Your task to perform on an android device: Clear the cart on amazon.com. Add "alienware aurora" to the cart on amazon.com, then select checkout. Image 0: 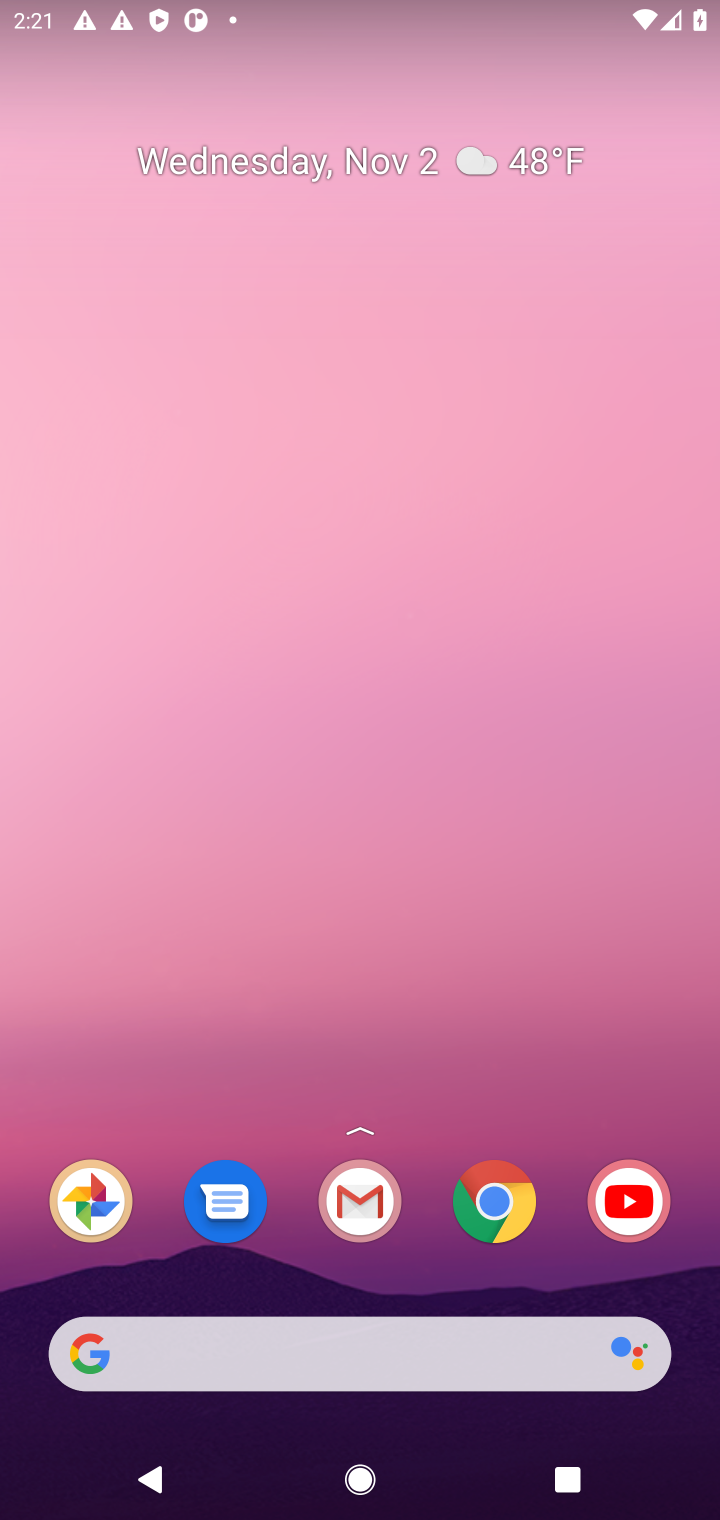
Step 0: click (496, 1186)
Your task to perform on an android device: Clear the cart on amazon.com. Add "alienware aurora" to the cart on amazon.com, then select checkout. Image 1: 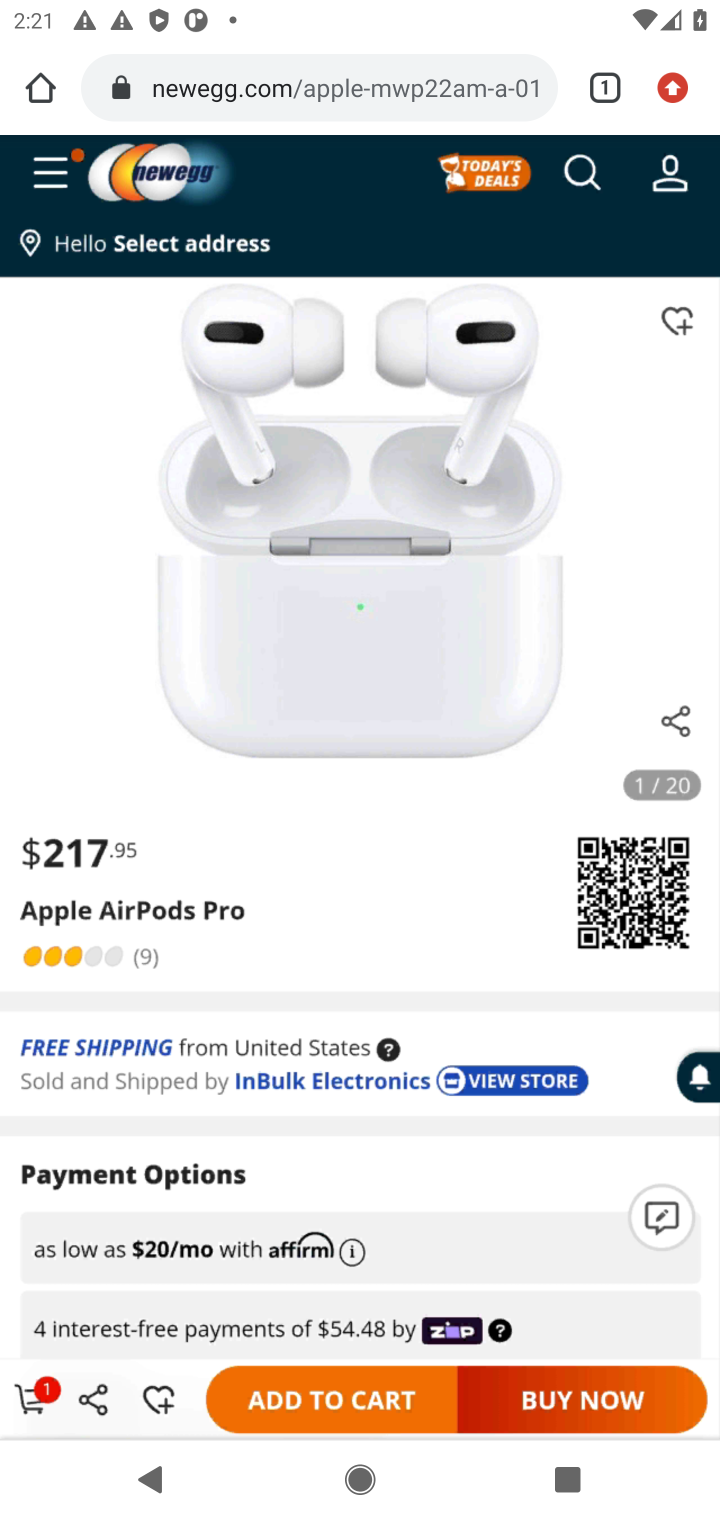
Step 1: click (389, 76)
Your task to perform on an android device: Clear the cart on amazon.com. Add "alienware aurora" to the cart on amazon.com, then select checkout. Image 2: 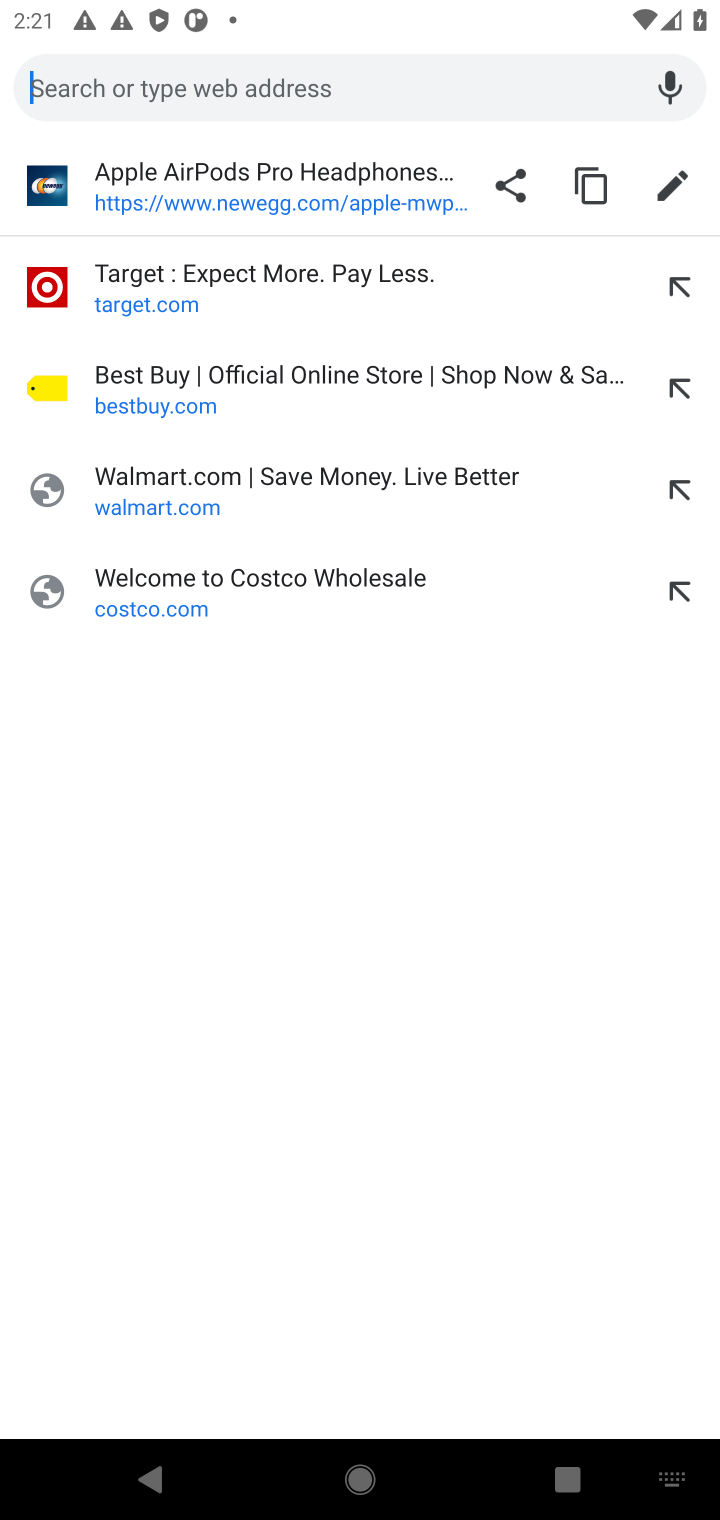
Step 2: type "amazon"
Your task to perform on an android device: Clear the cart on amazon.com. Add "alienware aurora" to the cart on amazon.com, then select checkout. Image 3: 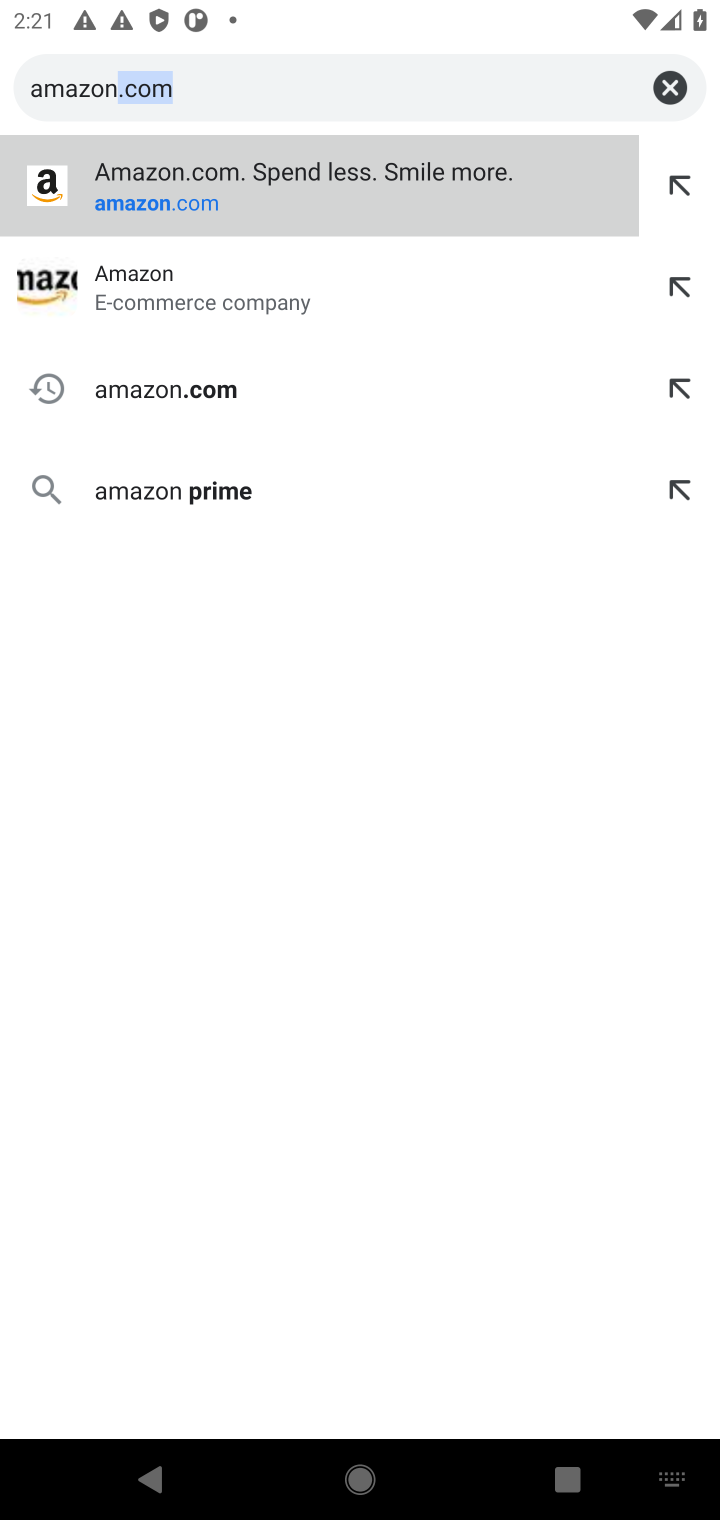
Step 3: click (205, 390)
Your task to perform on an android device: Clear the cart on amazon.com. Add "alienware aurora" to the cart on amazon.com, then select checkout. Image 4: 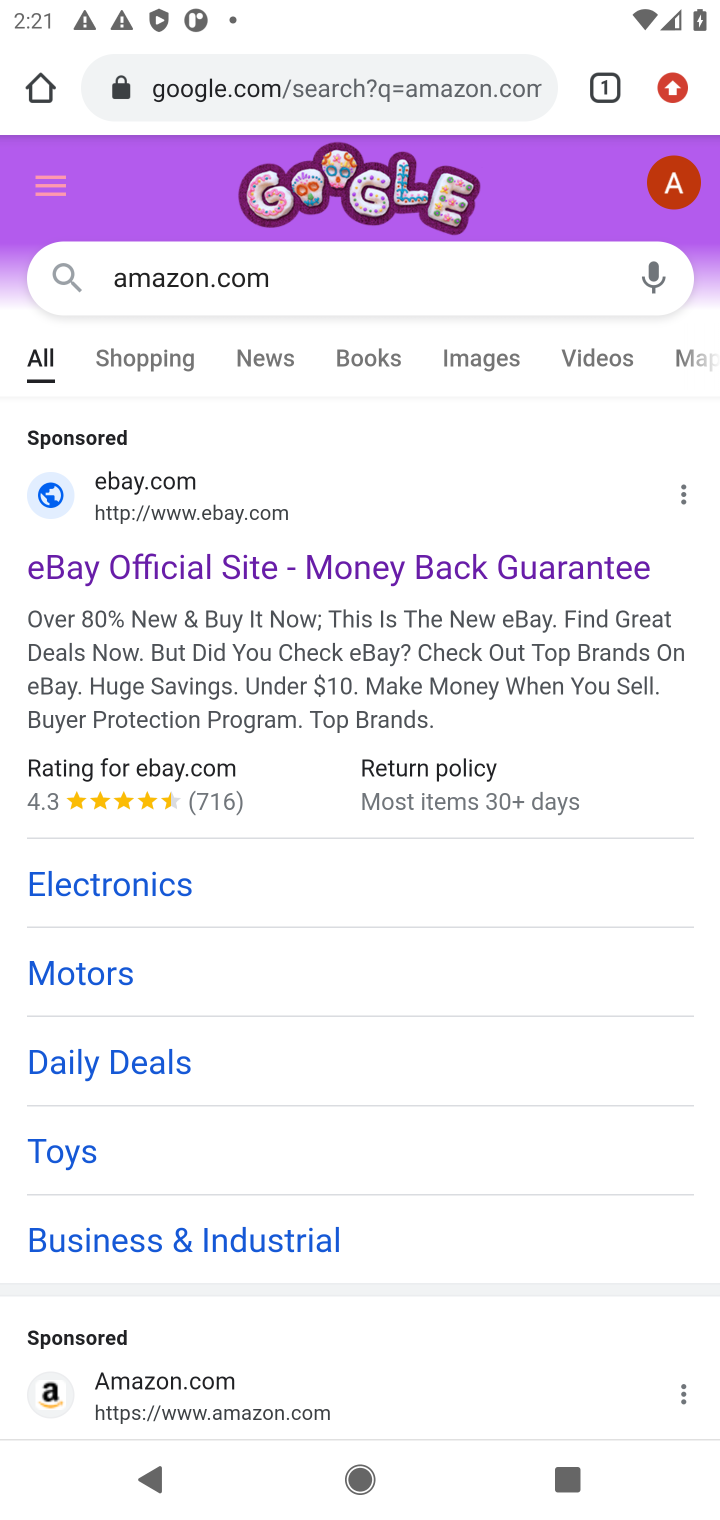
Step 4: drag from (329, 1137) to (376, 647)
Your task to perform on an android device: Clear the cart on amazon.com. Add "alienware aurora" to the cart on amazon.com, then select checkout. Image 5: 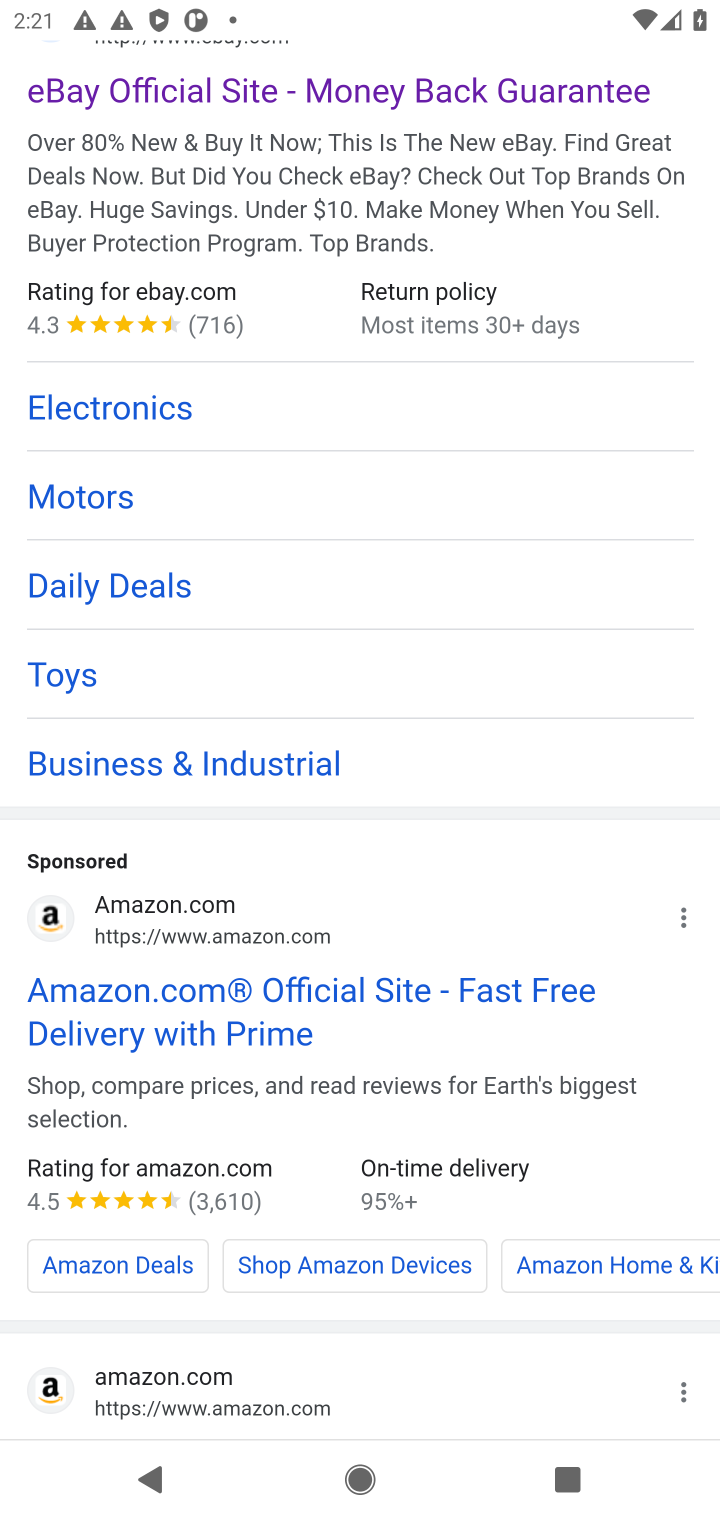
Step 5: click (203, 898)
Your task to perform on an android device: Clear the cart on amazon.com. Add "alienware aurora" to the cart on amazon.com, then select checkout. Image 6: 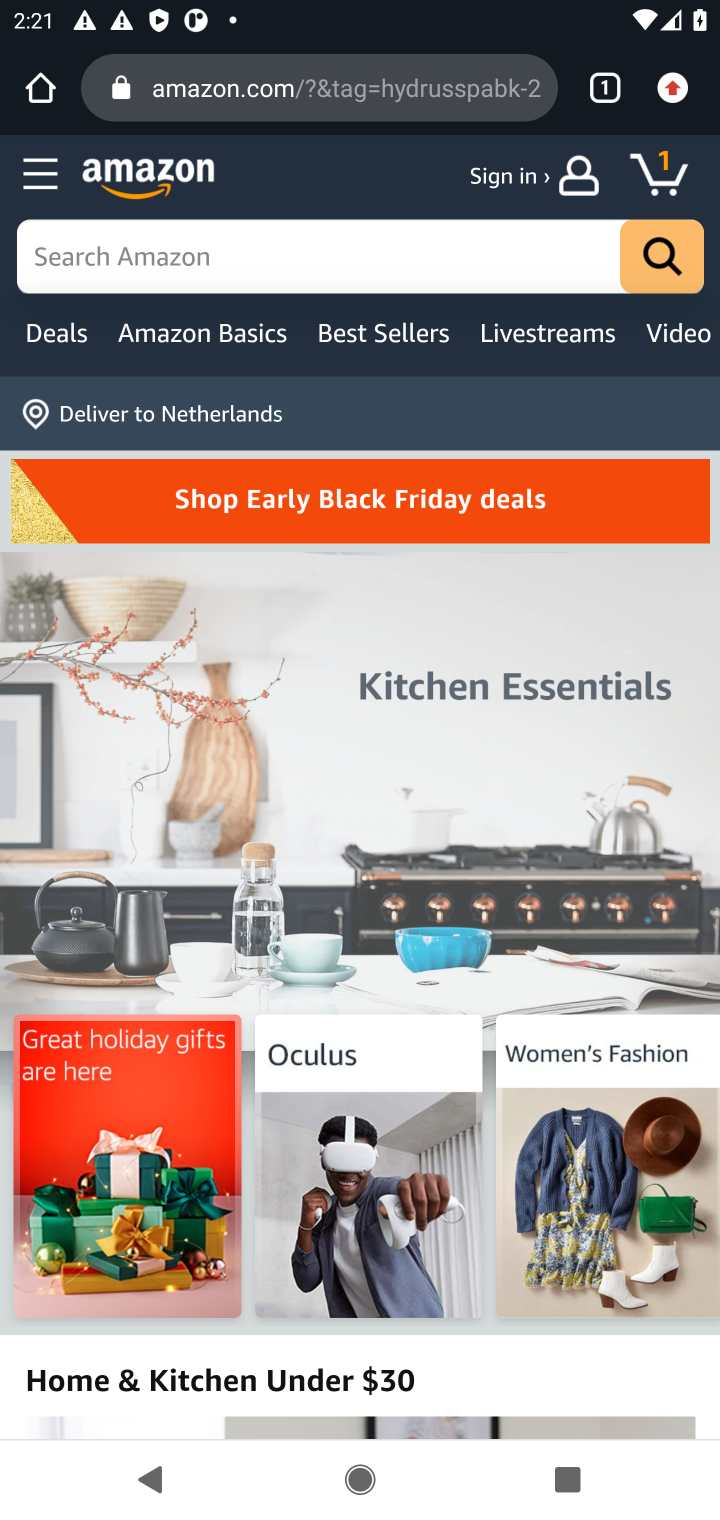
Step 6: click (655, 173)
Your task to perform on an android device: Clear the cart on amazon.com. Add "alienware aurora" to the cart on amazon.com, then select checkout. Image 7: 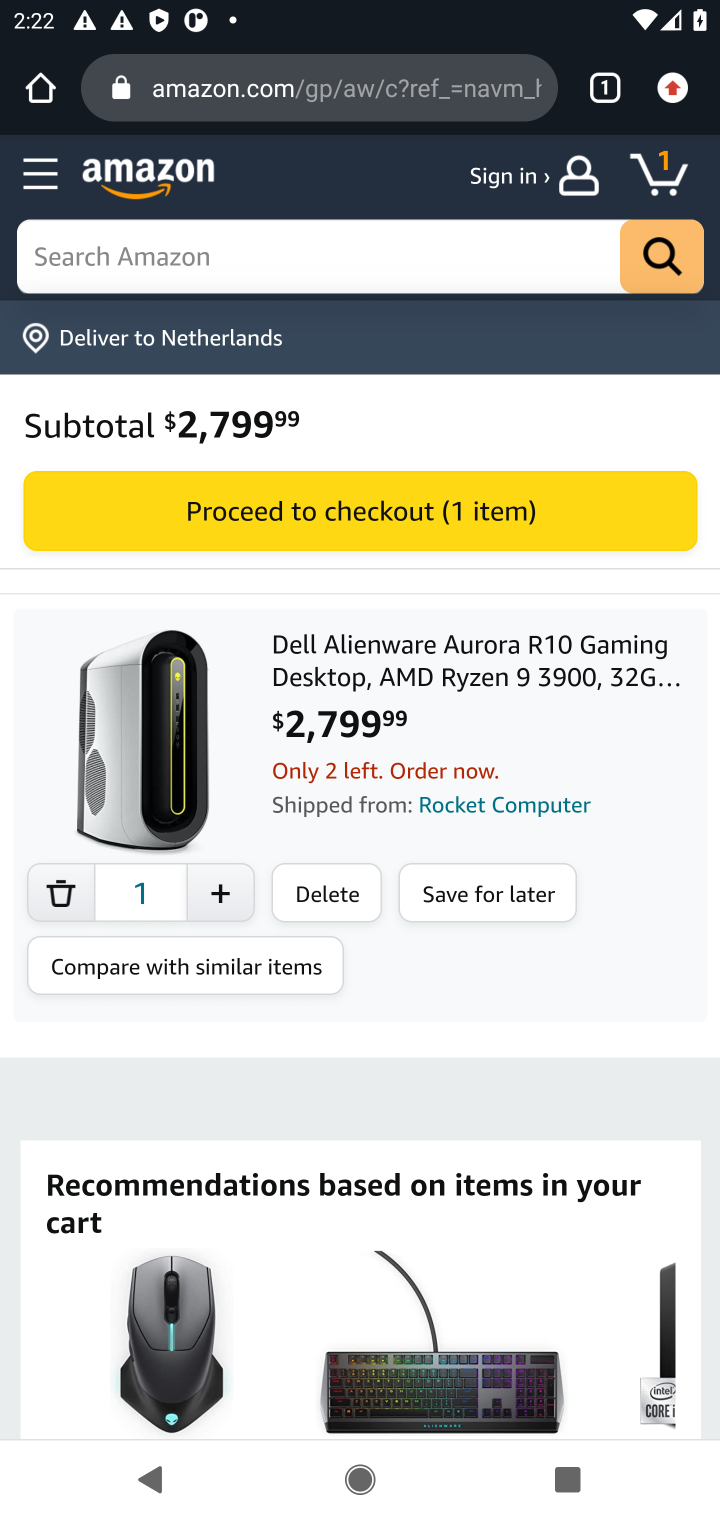
Step 7: click (320, 888)
Your task to perform on an android device: Clear the cart on amazon.com. Add "alienware aurora" to the cart on amazon.com, then select checkout. Image 8: 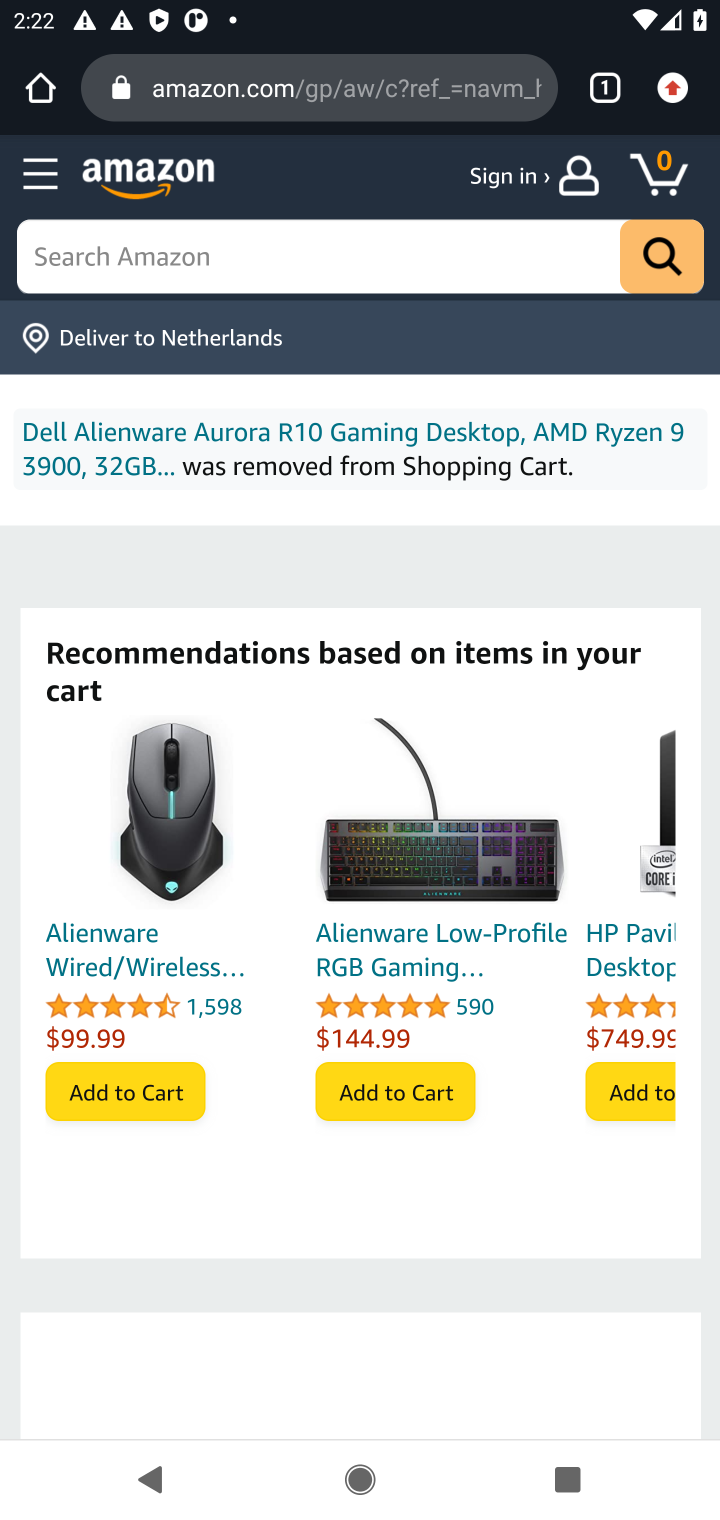
Step 8: click (459, 245)
Your task to perform on an android device: Clear the cart on amazon.com. Add "alienware aurora" to the cart on amazon.com, then select checkout. Image 9: 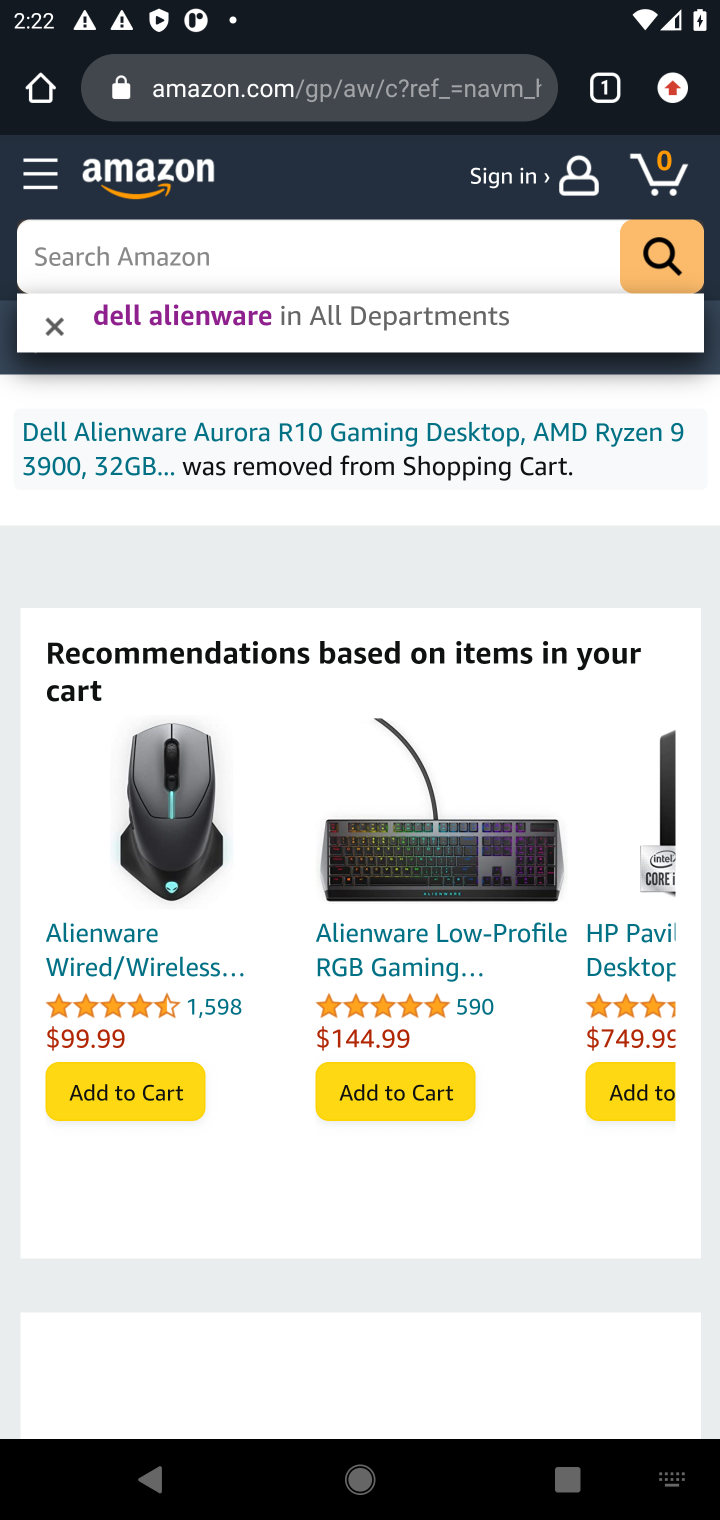
Step 9: type "alienware aurora"
Your task to perform on an android device: Clear the cart on amazon.com. Add "alienware aurora" to the cart on amazon.com, then select checkout. Image 10: 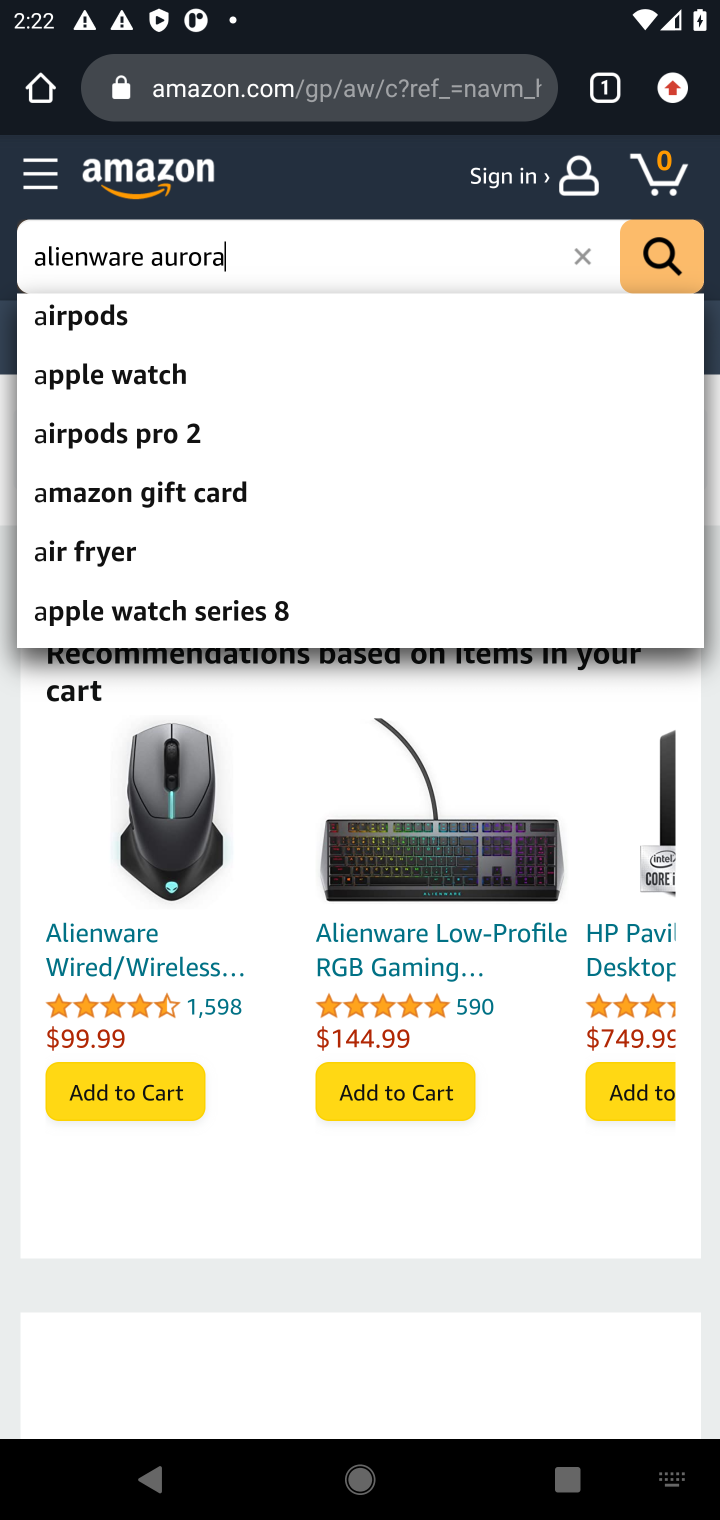
Step 10: press enter
Your task to perform on an android device: Clear the cart on amazon.com. Add "alienware aurora" to the cart on amazon.com, then select checkout. Image 11: 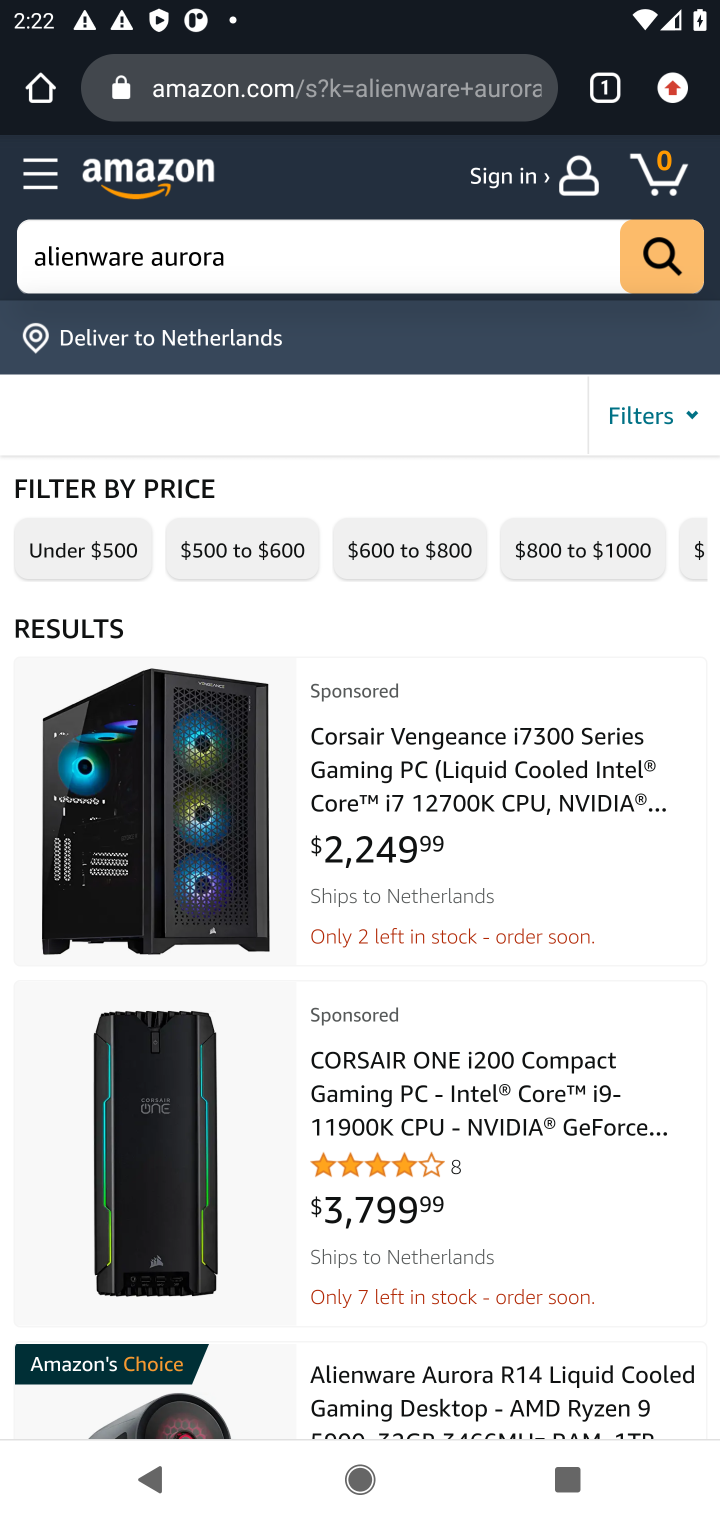
Step 11: click (469, 1395)
Your task to perform on an android device: Clear the cart on amazon.com. Add "alienware aurora" to the cart on amazon.com, then select checkout. Image 12: 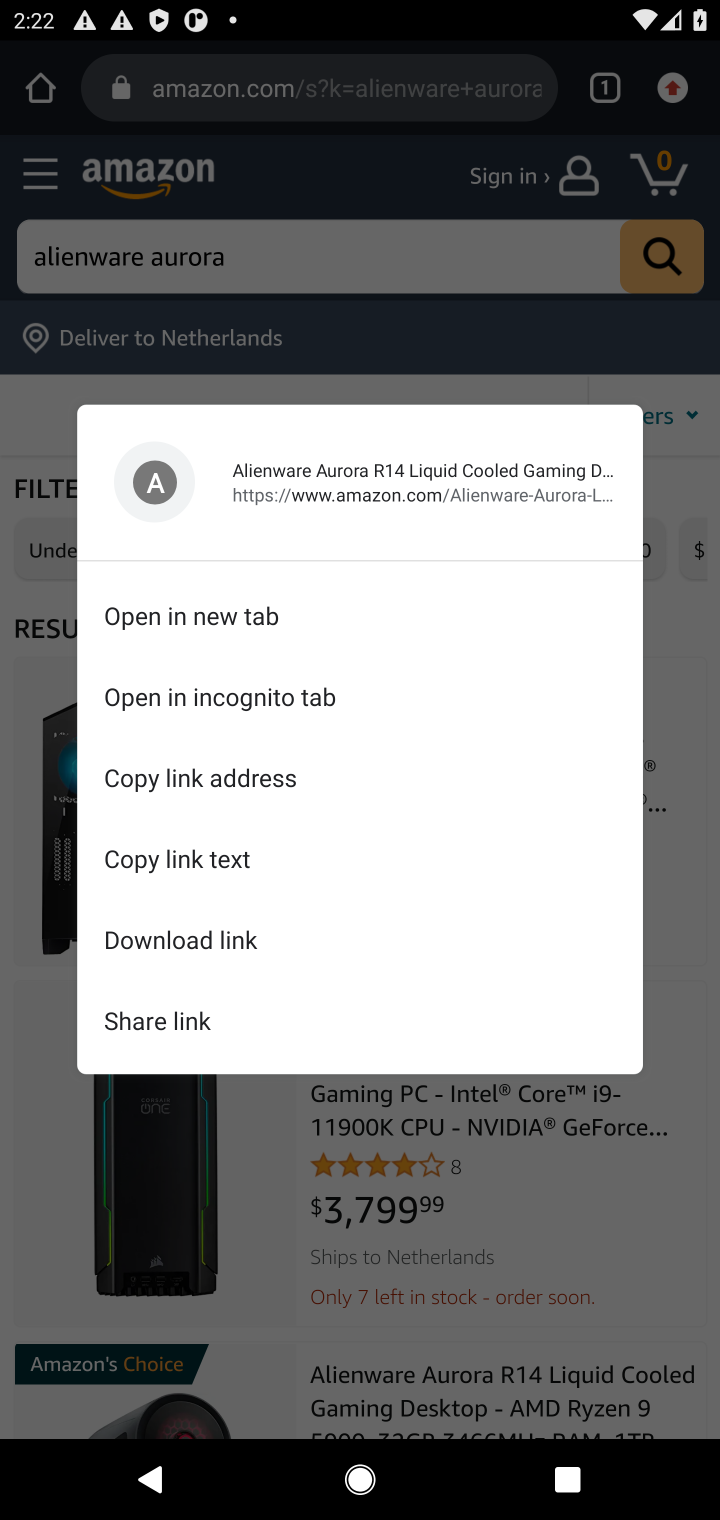
Step 12: click (469, 1395)
Your task to perform on an android device: Clear the cart on amazon.com. Add "alienware aurora" to the cart on amazon.com, then select checkout. Image 13: 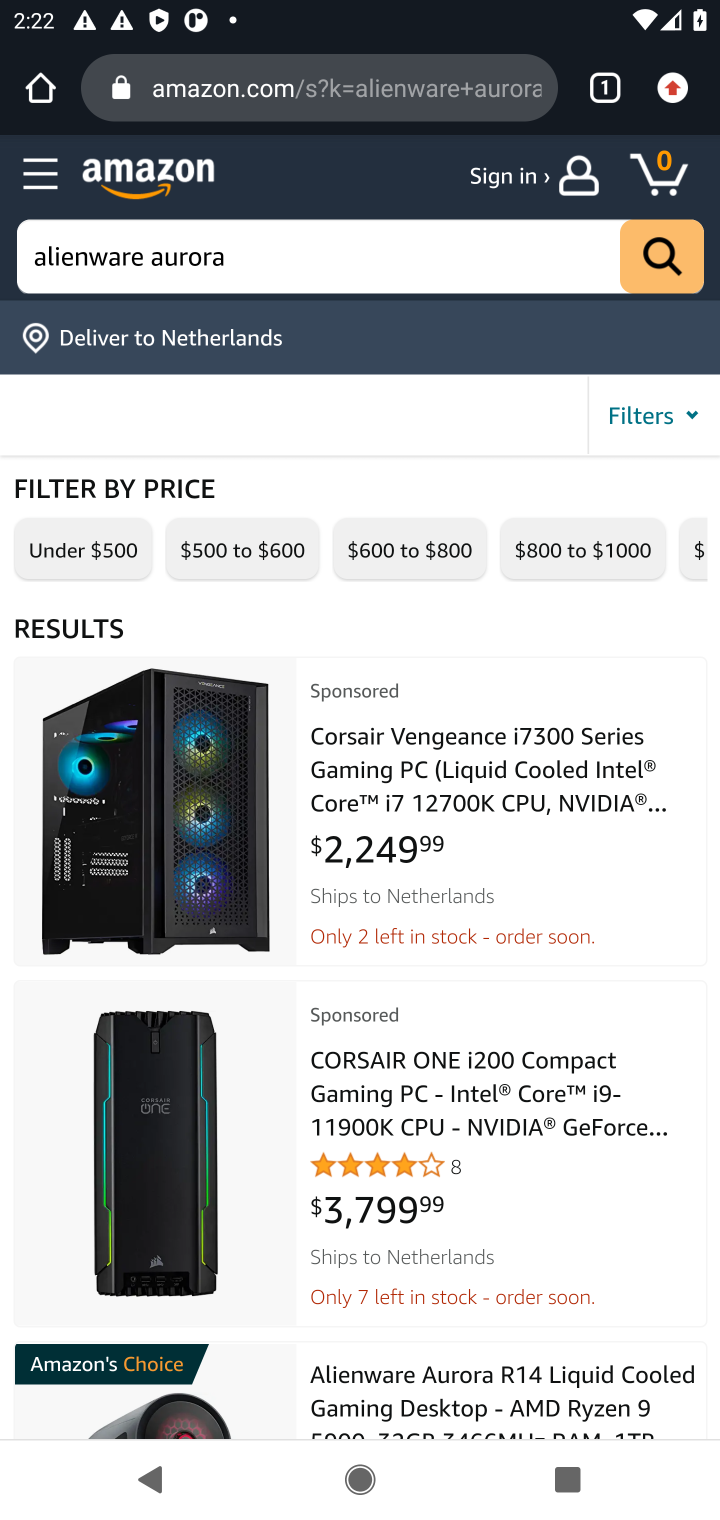
Step 13: drag from (465, 1198) to (502, 710)
Your task to perform on an android device: Clear the cart on amazon.com. Add "alienware aurora" to the cart on amazon.com, then select checkout. Image 14: 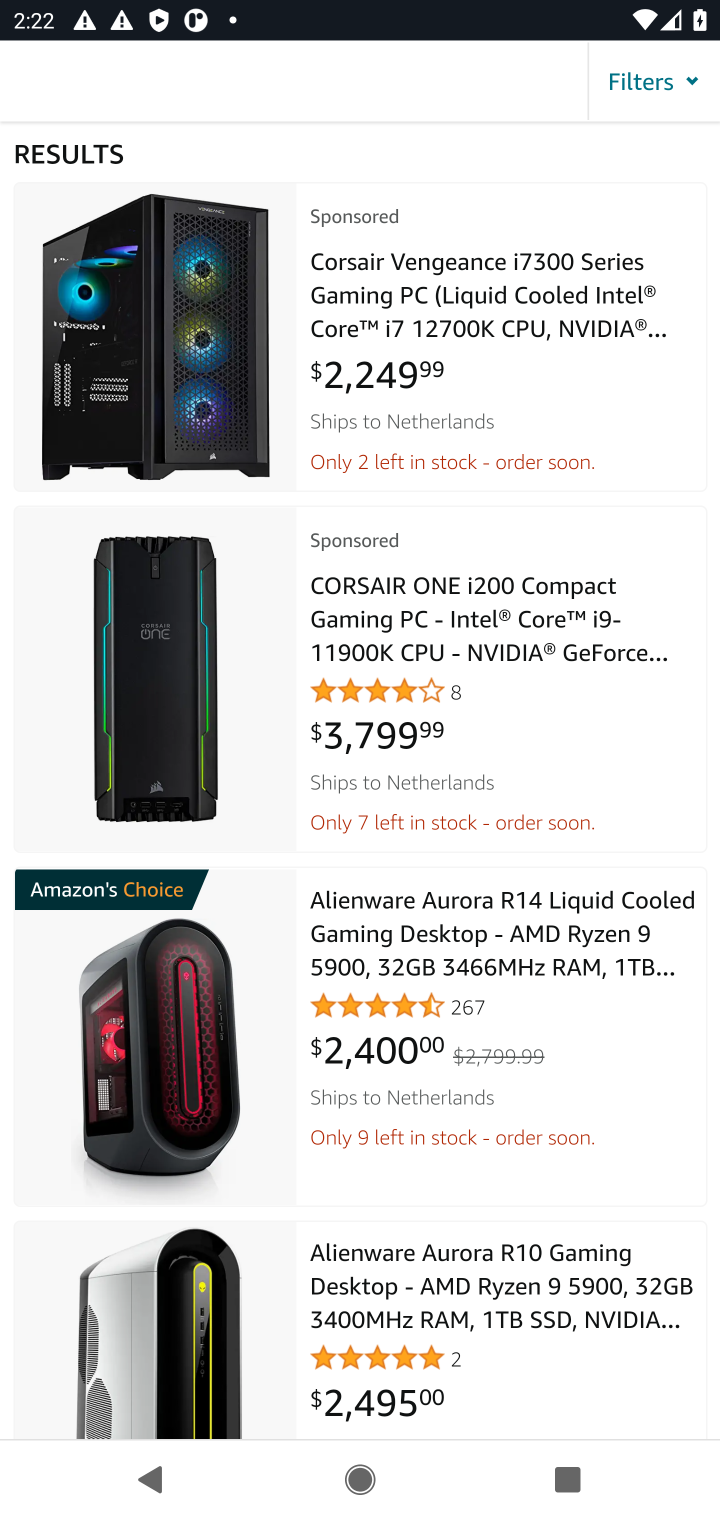
Step 14: click (195, 1019)
Your task to perform on an android device: Clear the cart on amazon.com. Add "alienware aurora" to the cart on amazon.com, then select checkout. Image 15: 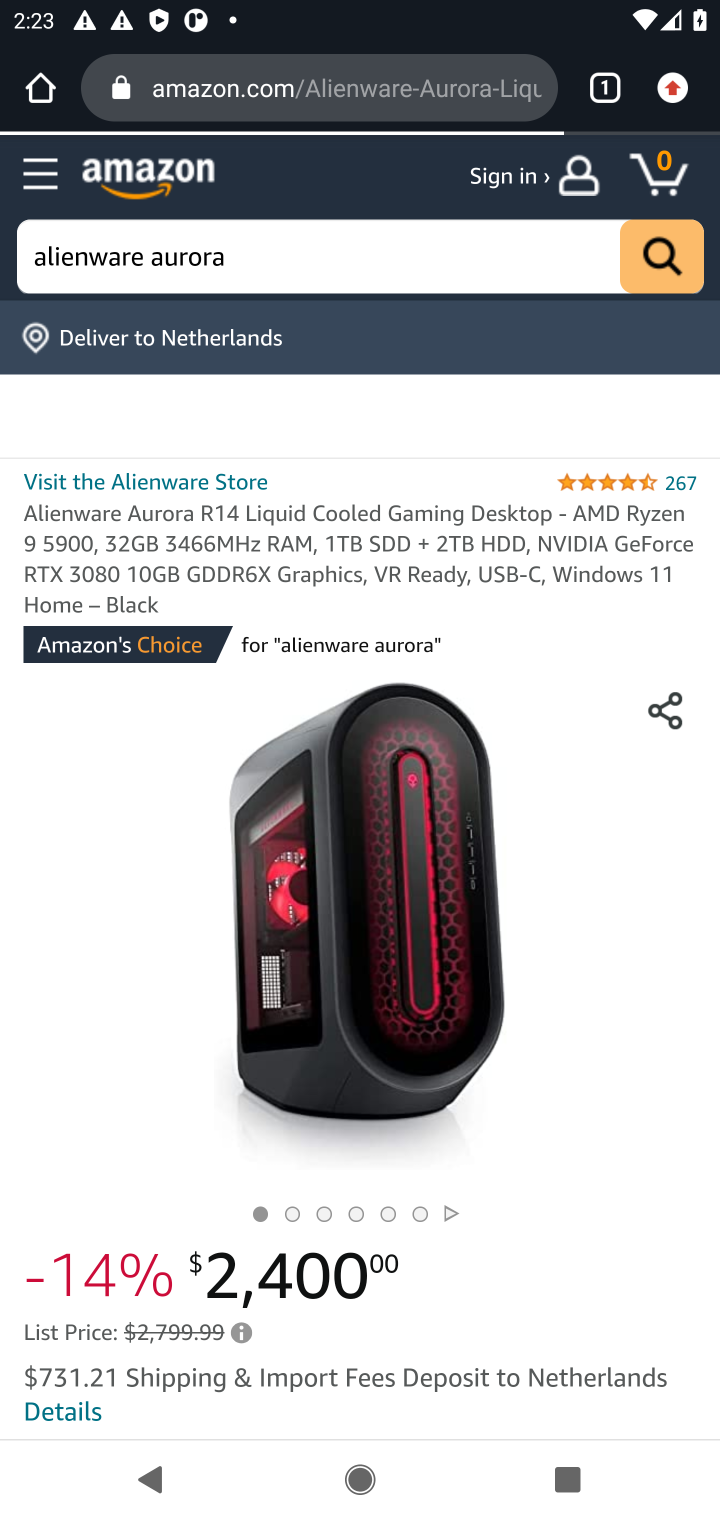
Step 15: drag from (544, 998) to (530, 566)
Your task to perform on an android device: Clear the cart on amazon.com. Add "alienware aurora" to the cart on amazon.com, then select checkout. Image 16: 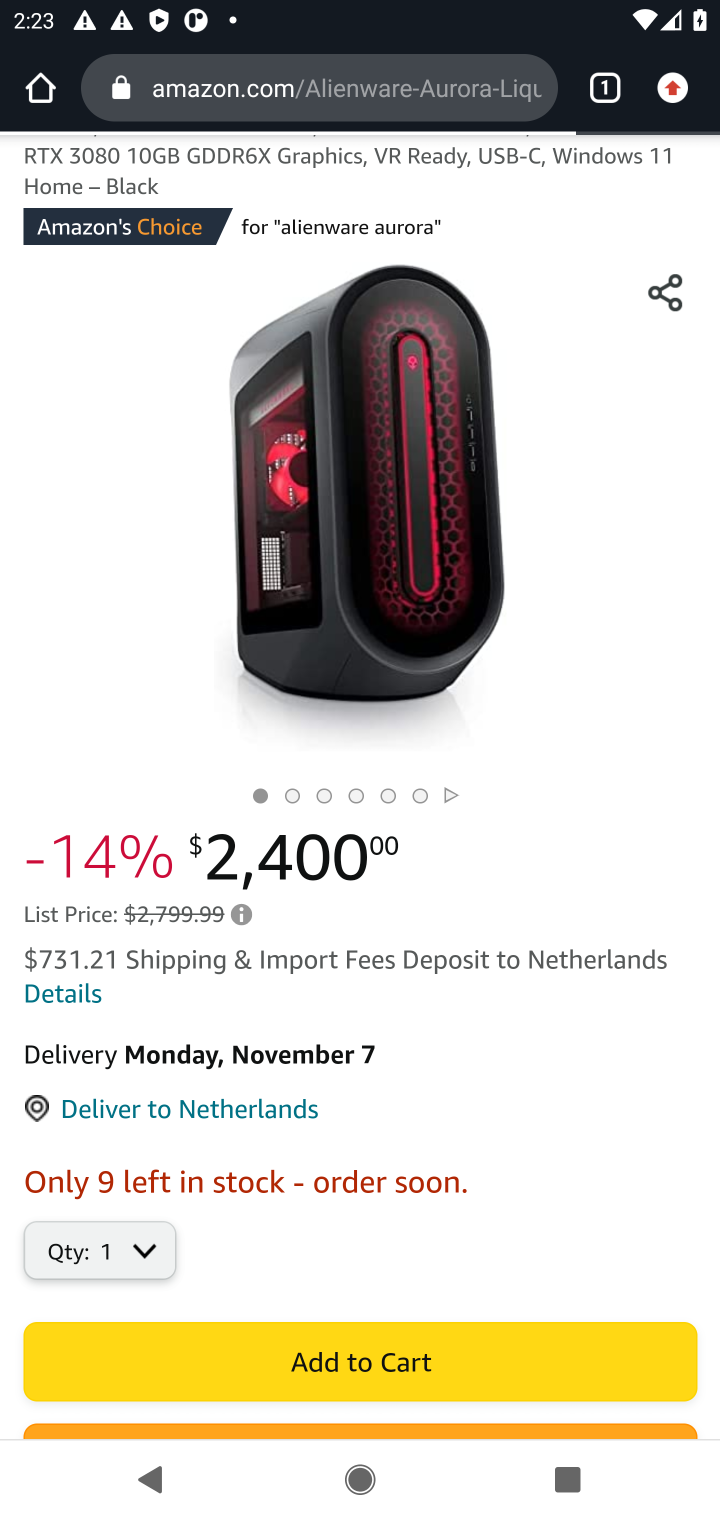
Step 16: click (495, 1367)
Your task to perform on an android device: Clear the cart on amazon.com. Add "alienware aurora" to the cart on amazon.com, then select checkout. Image 17: 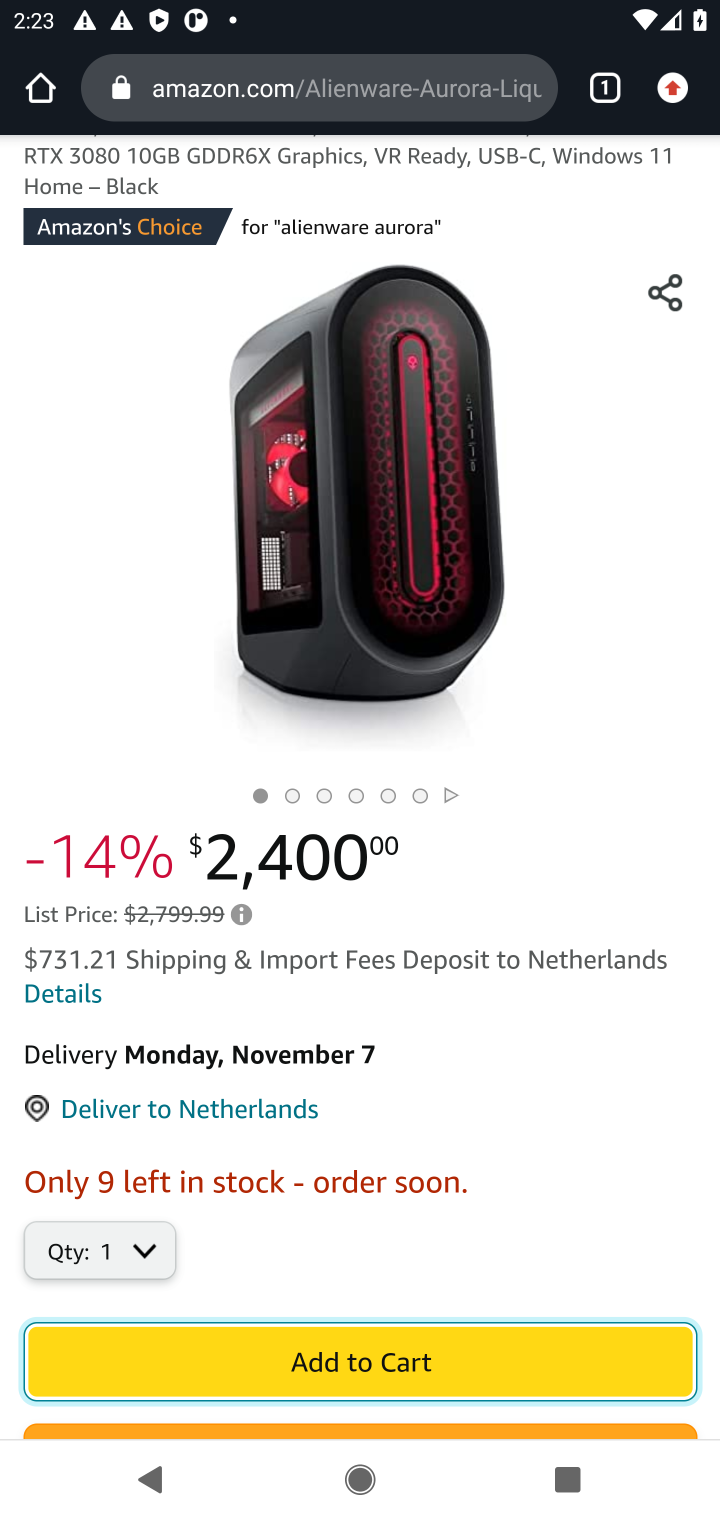
Step 17: click (344, 1363)
Your task to perform on an android device: Clear the cart on amazon.com. Add "alienware aurora" to the cart on amazon.com, then select checkout. Image 18: 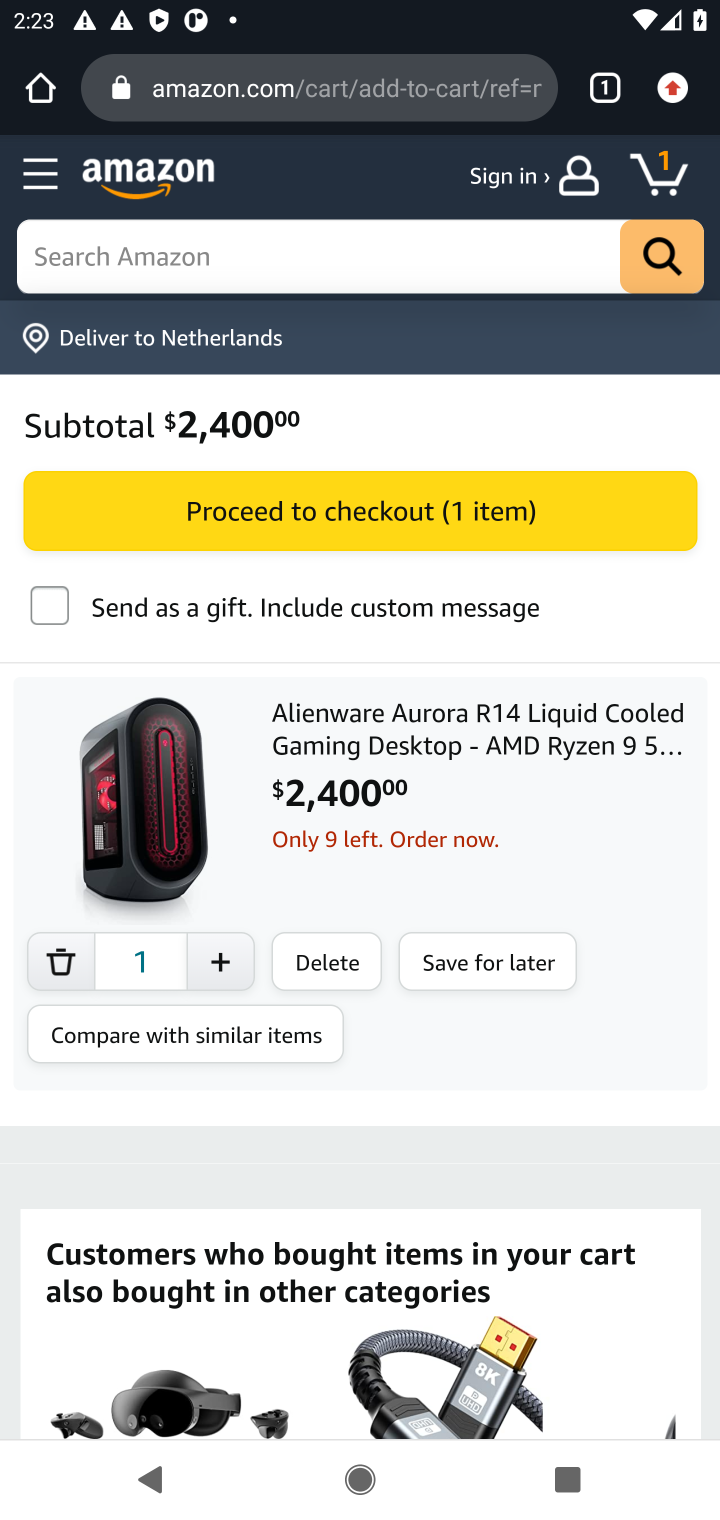
Step 18: click (382, 509)
Your task to perform on an android device: Clear the cart on amazon.com. Add "alienware aurora" to the cart on amazon.com, then select checkout. Image 19: 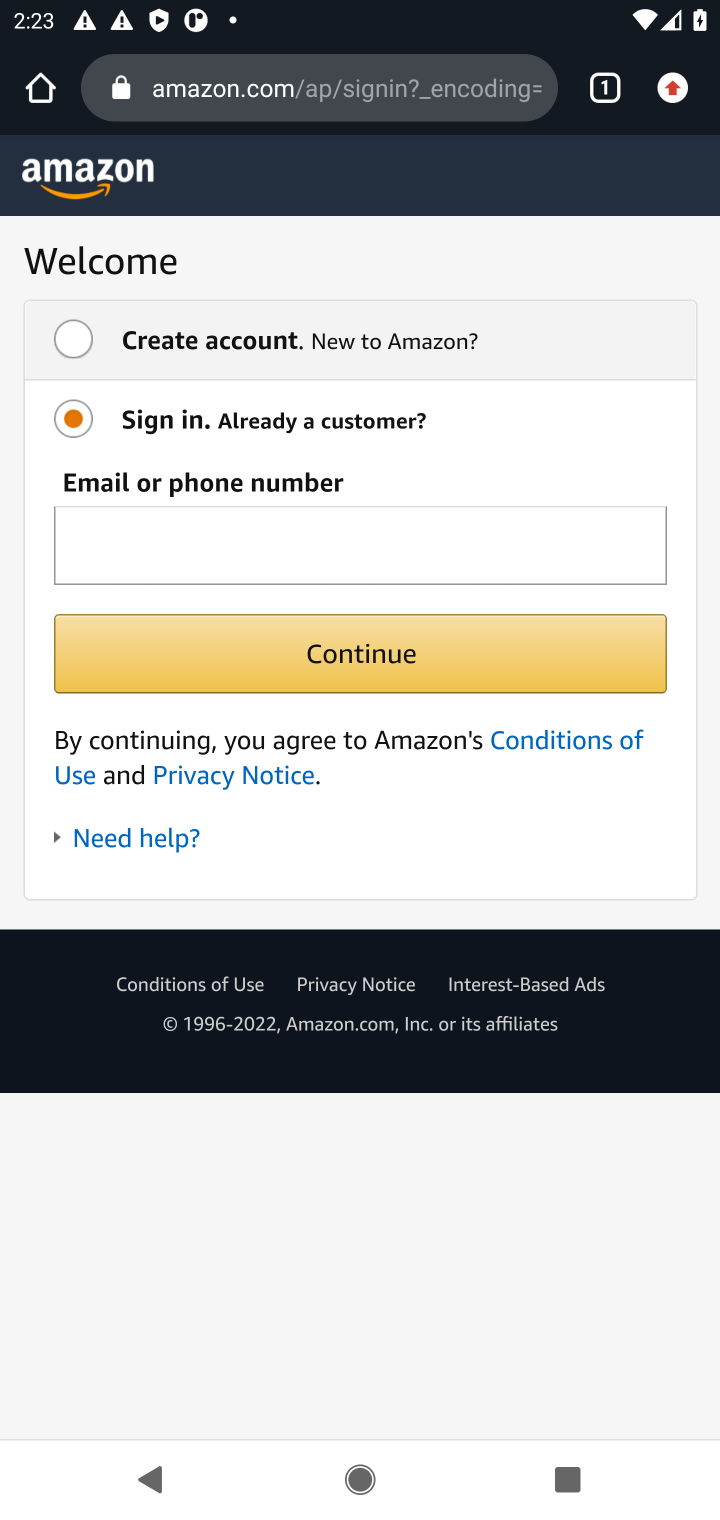
Step 19: task complete